Your task to perform on an android device: Is it going to rain this weekend? Image 0: 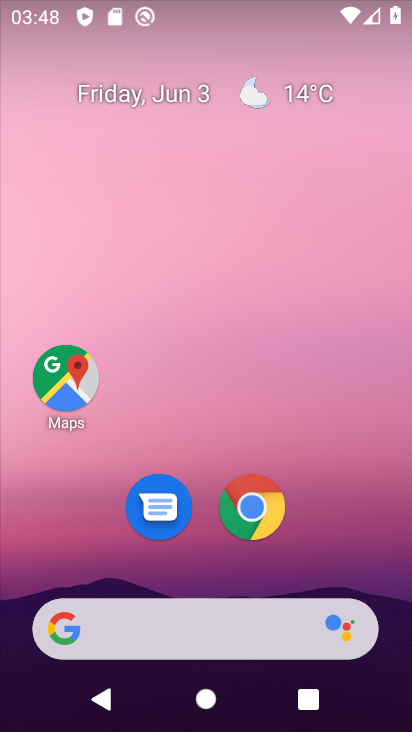
Step 0: click (53, 636)
Your task to perform on an android device: Is it going to rain this weekend? Image 1: 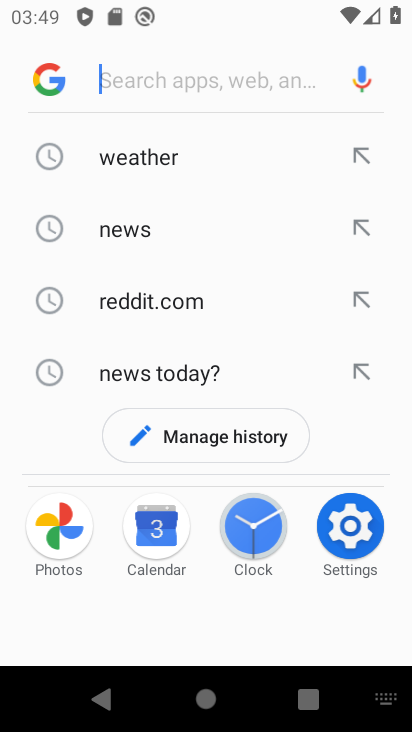
Step 1: type "rain this weekend?"
Your task to perform on an android device: Is it going to rain this weekend? Image 2: 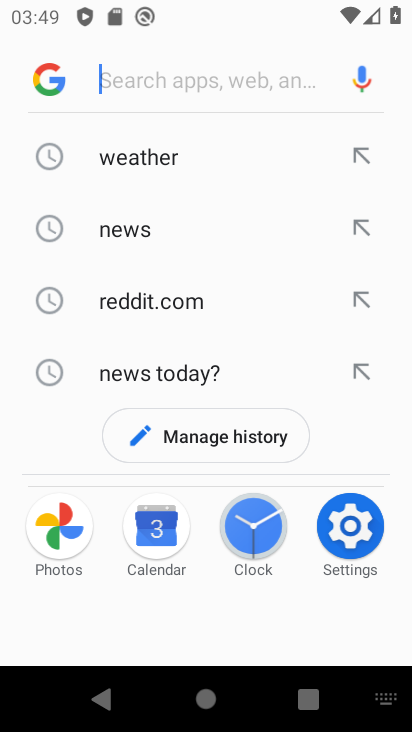
Step 2: click (204, 85)
Your task to perform on an android device: Is it going to rain this weekend? Image 3: 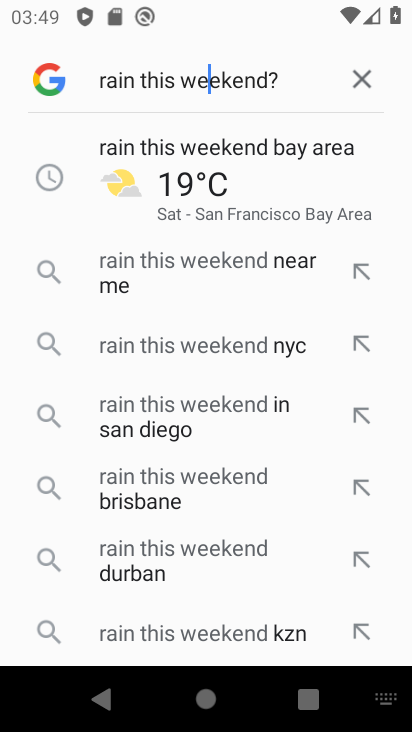
Step 3: drag from (23, 467) to (52, 110)
Your task to perform on an android device: Is it going to rain this weekend? Image 4: 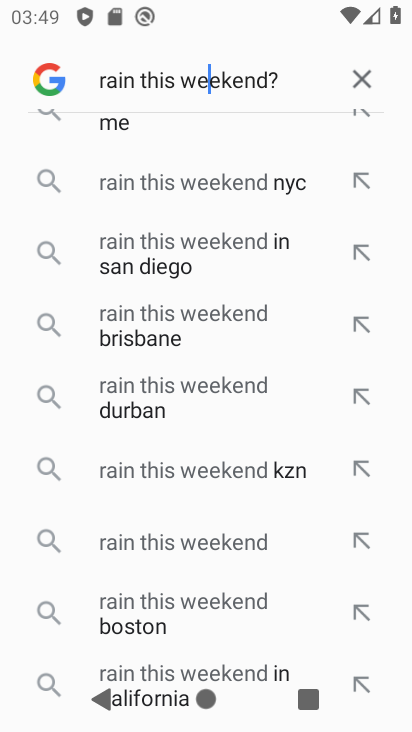
Step 4: click (178, 543)
Your task to perform on an android device: Is it going to rain this weekend? Image 5: 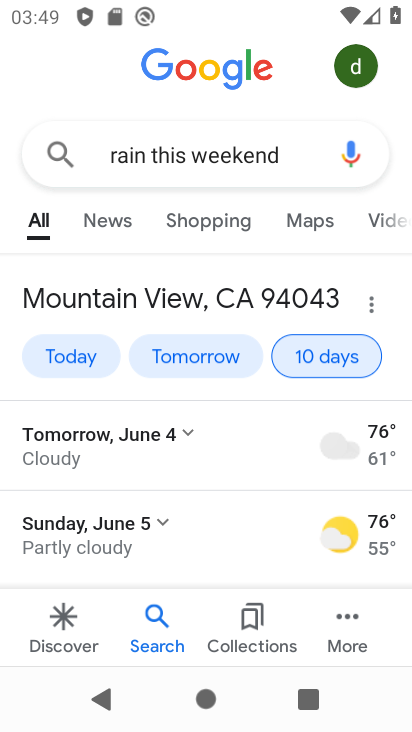
Step 5: task complete